Your task to perform on an android device: turn vacation reply on in the gmail app Image 0: 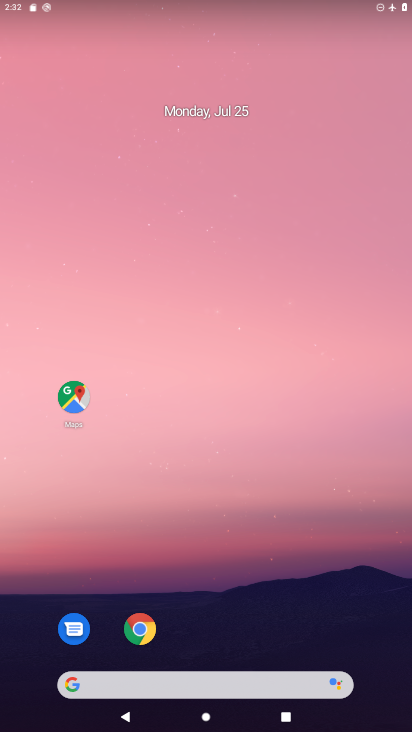
Step 0: drag from (261, 572) to (171, 12)
Your task to perform on an android device: turn vacation reply on in the gmail app Image 1: 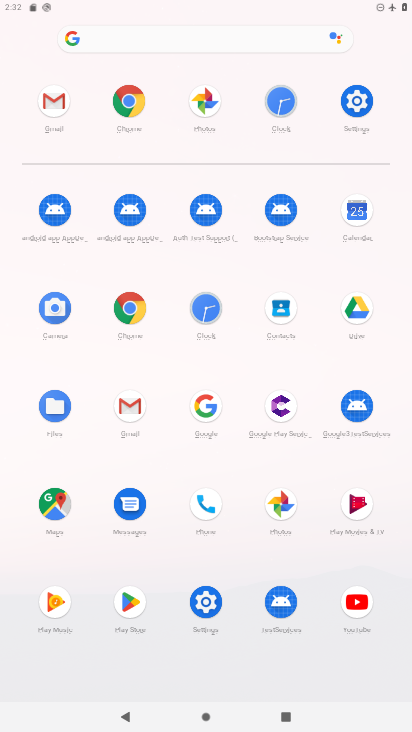
Step 1: click (46, 107)
Your task to perform on an android device: turn vacation reply on in the gmail app Image 2: 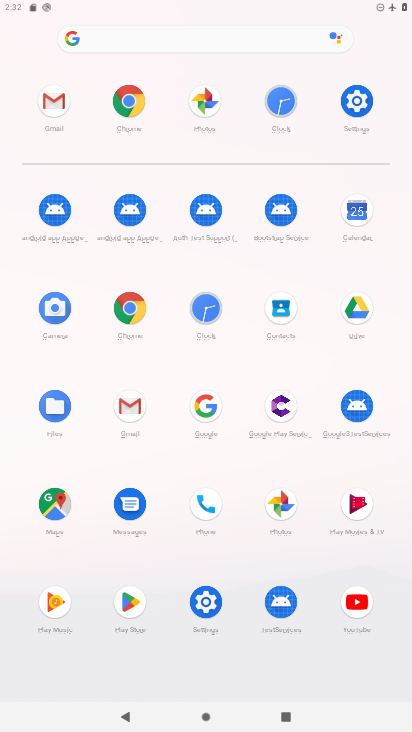
Step 2: click (60, 108)
Your task to perform on an android device: turn vacation reply on in the gmail app Image 3: 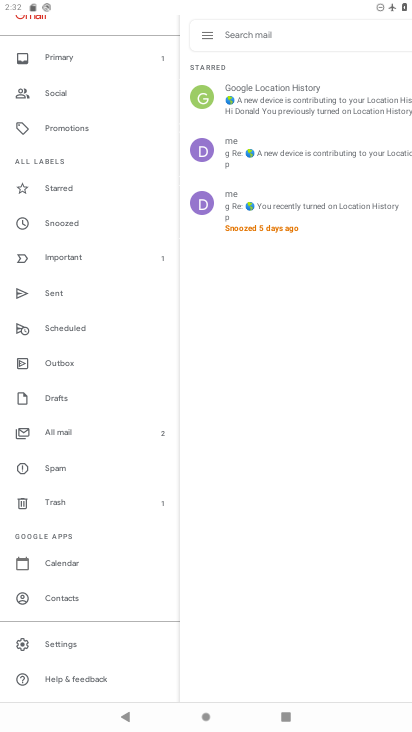
Step 3: click (81, 642)
Your task to perform on an android device: turn vacation reply on in the gmail app Image 4: 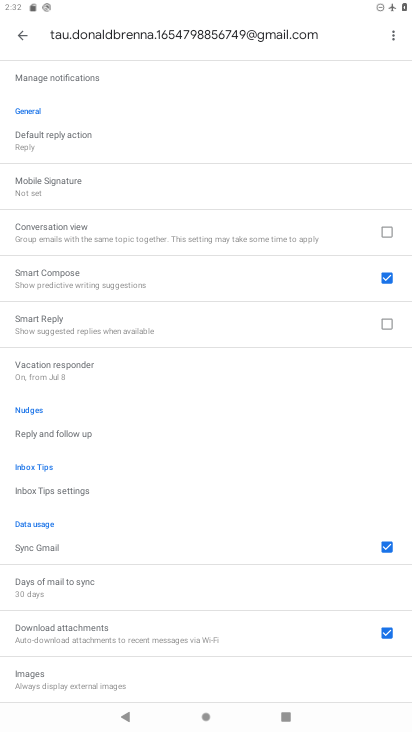
Step 4: drag from (156, 692) to (145, 491)
Your task to perform on an android device: turn vacation reply on in the gmail app Image 5: 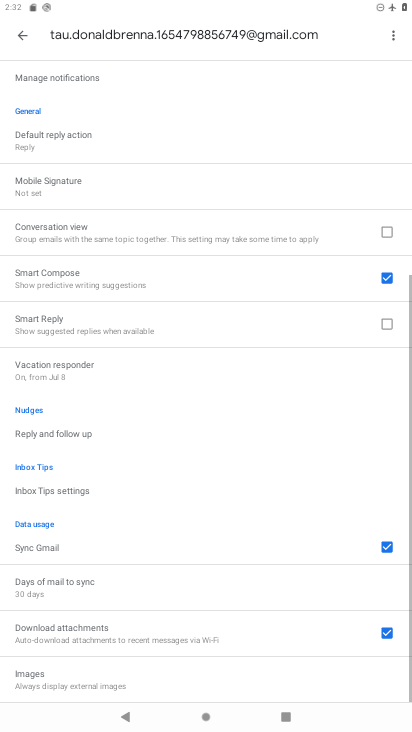
Step 5: click (64, 387)
Your task to perform on an android device: turn vacation reply on in the gmail app Image 6: 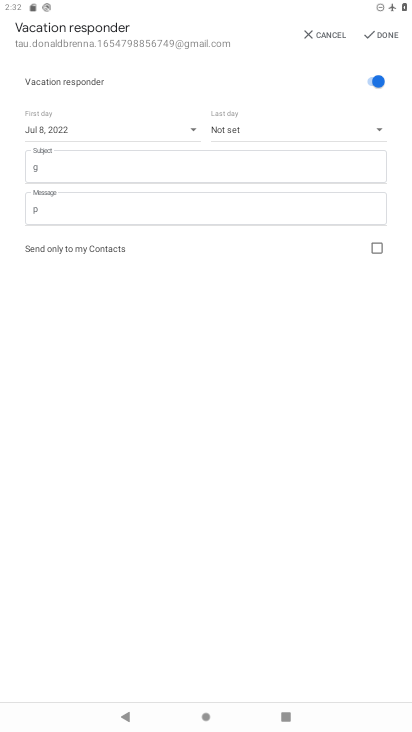
Step 6: task complete